Your task to perform on an android device: delete browsing data in the chrome app Image 0: 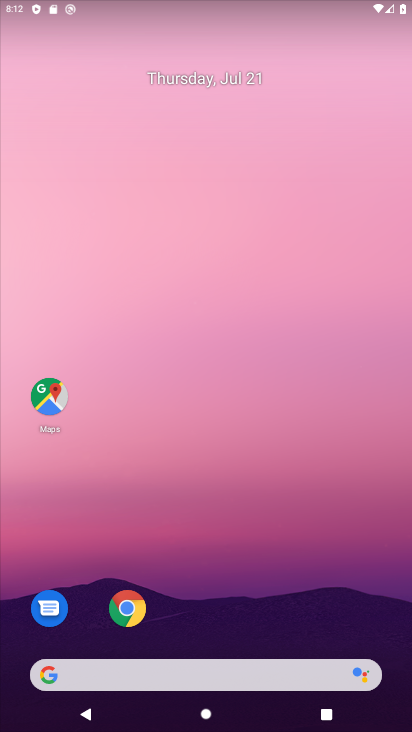
Step 0: click (126, 596)
Your task to perform on an android device: delete browsing data in the chrome app Image 1: 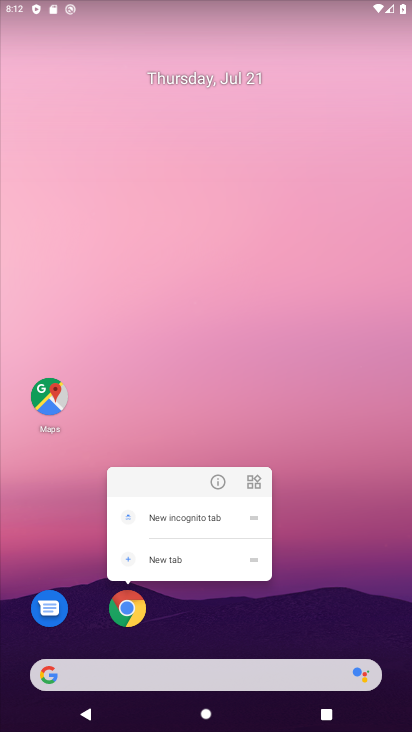
Step 1: click (127, 607)
Your task to perform on an android device: delete browsing data in the chrome app Image 2: 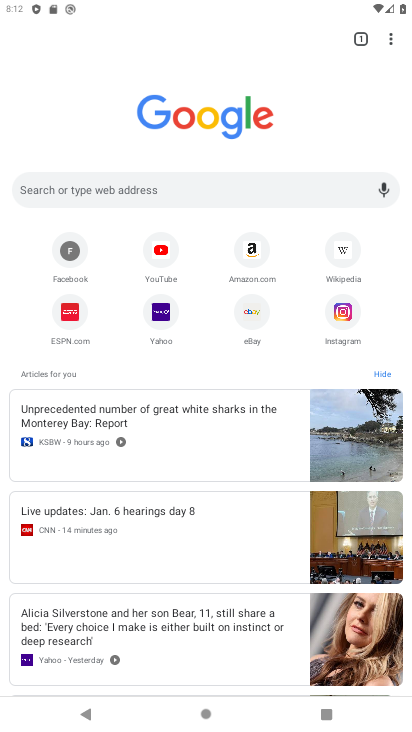
Step 2: click (390, 40)
Your task to perform on an android device: delete browsing data in the chrome app Image 3: 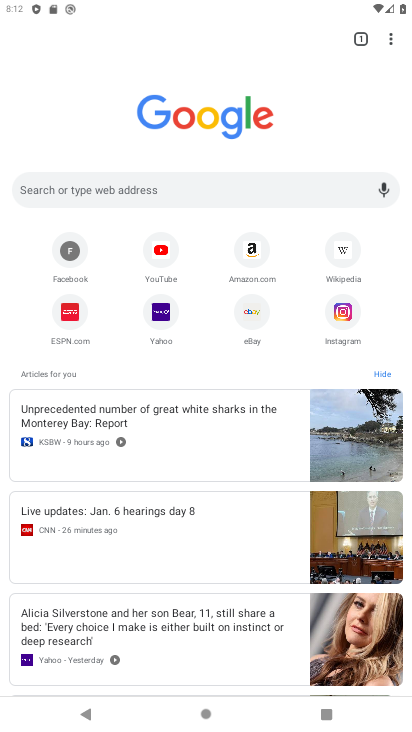
Step 3: click (393, 36)
Your task to perform on an android device: delete browsing data in the chrome app Image 4: 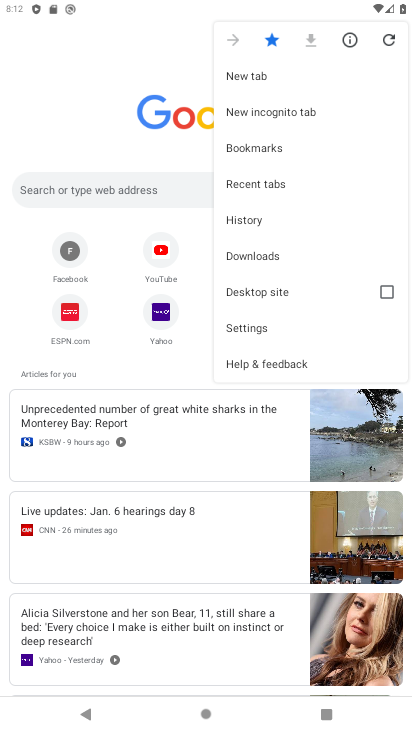
Step 4: click (238, 329)
Your task to perform on an android device: delete browsing data in the chrome app Image 5: 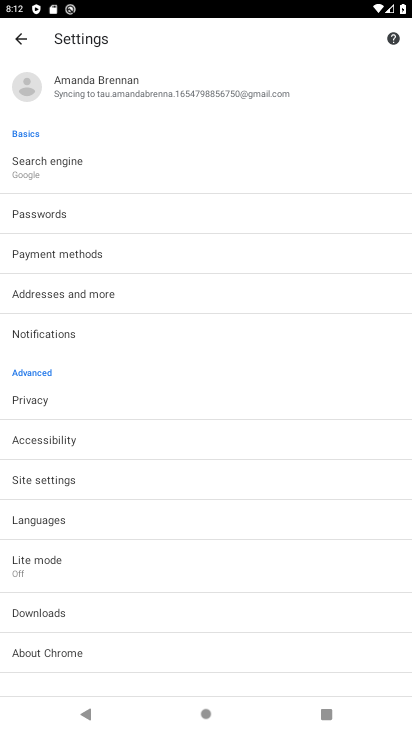
Step 5: click (33, 23)
Your task to perform on an android device: delete browsing data in the chrome app Image 6: 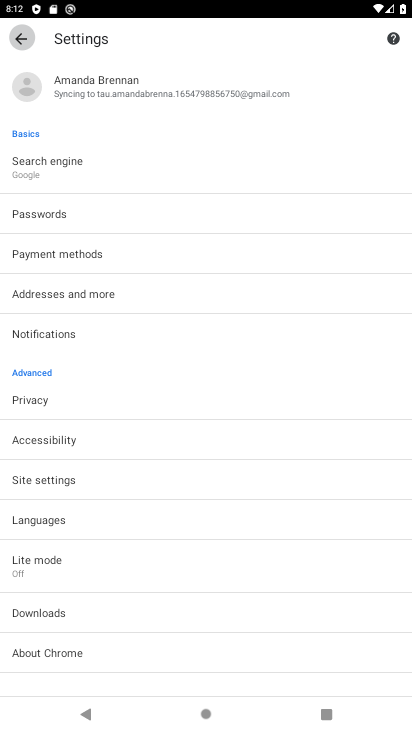
Step 6: click (17, 38)
Your task to perform on an android device: delete browsing data in the chrome app Image 7: 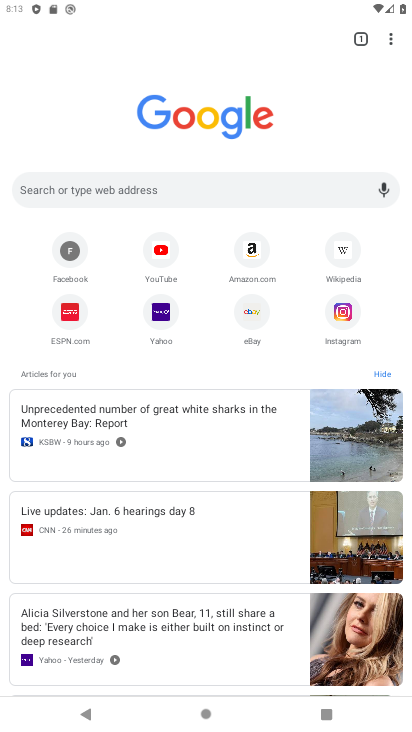
Step 7: click (389, 27)
Your task to perform on an android device: delete browsing data in the chrome app Image 8: 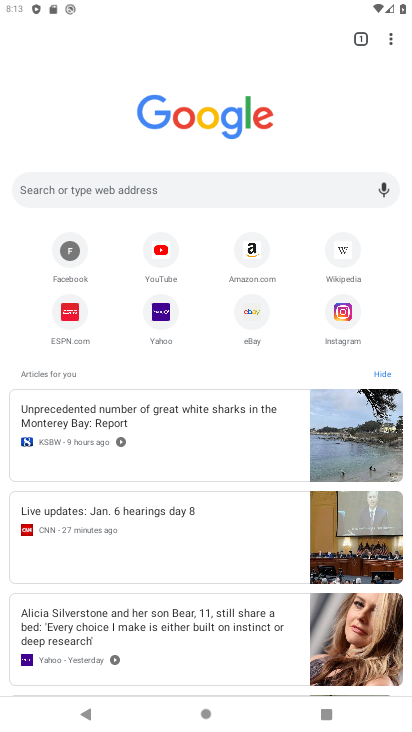
Step 8: click (390, 36)
Your task to perform on an android device: delete browsing data in the chrome app Image 9: 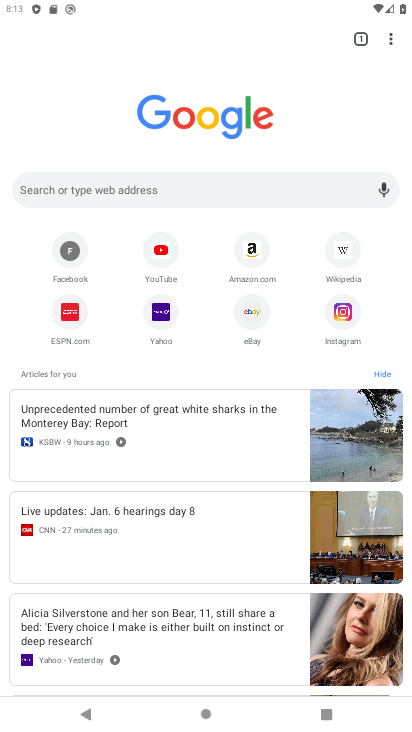
Step 9: click (386, 37)
Your task to perform on an android device: delete browsing data in the chrome app Image 10: 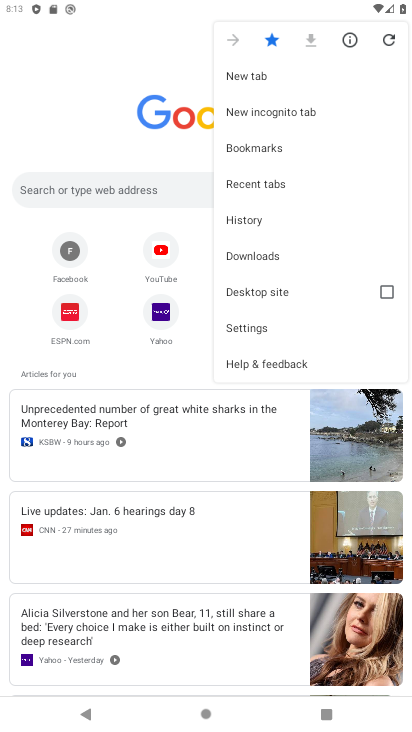
Step 10: click (258, 218)
Your task to perform on an android device: delete browsing data in the chrome app Image 11: 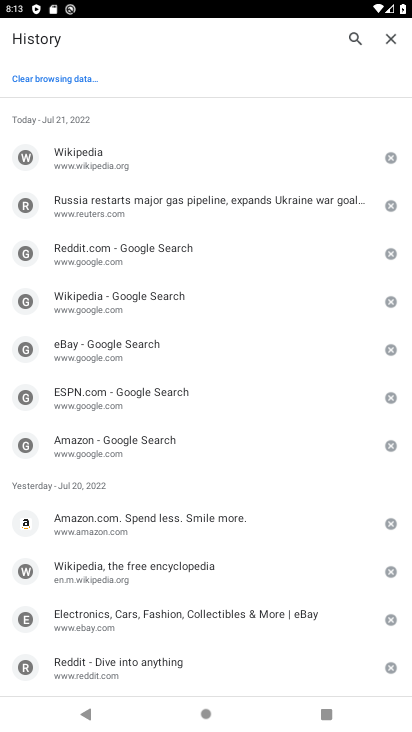
Step 11: click (47, 80)
Your task to perform on an android device: delete browsing data in the chrome app Image 12: 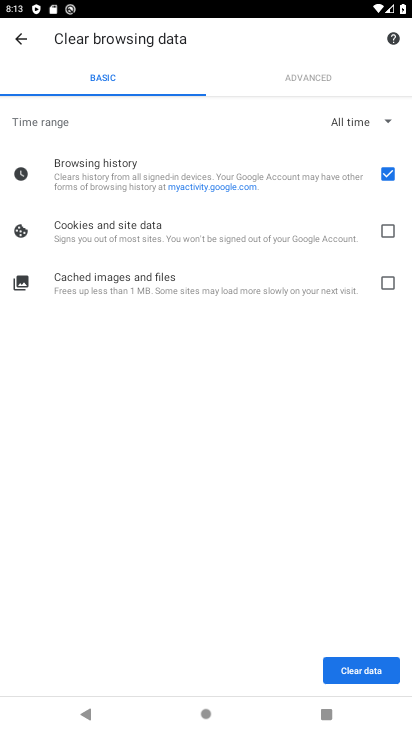
Step 12: click (366, 677)
Your task to perform on an android device: delete browsing data in the chrome app Image 13: 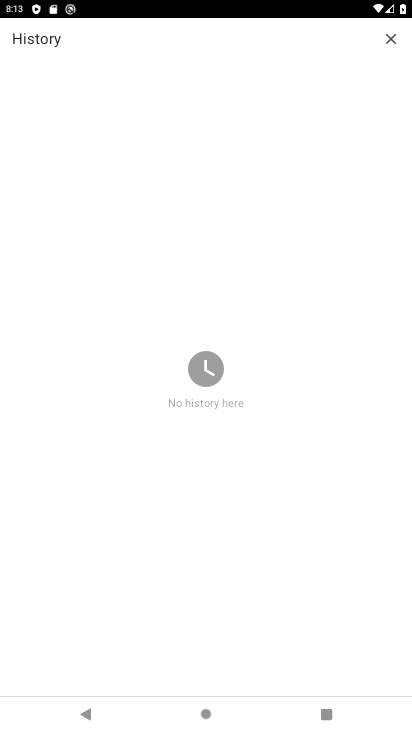
Step 13: task complete